Your task to perform on an android device: Open Youtube and go to "Your channel" Image 0: 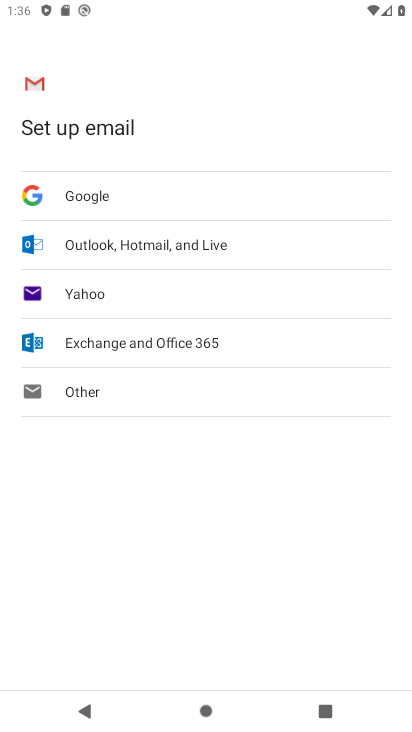
Step 0: press home button
Your task to perform on an android device: Open Youtube and go to "Your channel" Image 1: 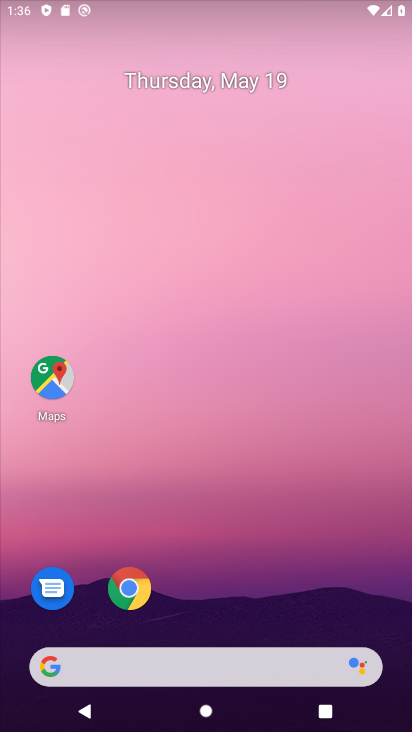
Step 1: drag from (290, 471) to (267, 72)
Your task to perform on an android device: Open Youtube and go to "Your channel" Image 2: 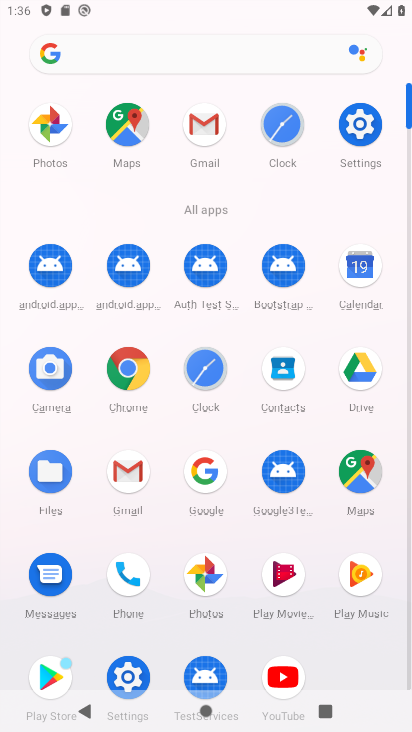
Step 2: drag from (245, 515) to (230, 305)
Your task to perform on an android device: Open Youtube and go to "Your channel" Image 3: 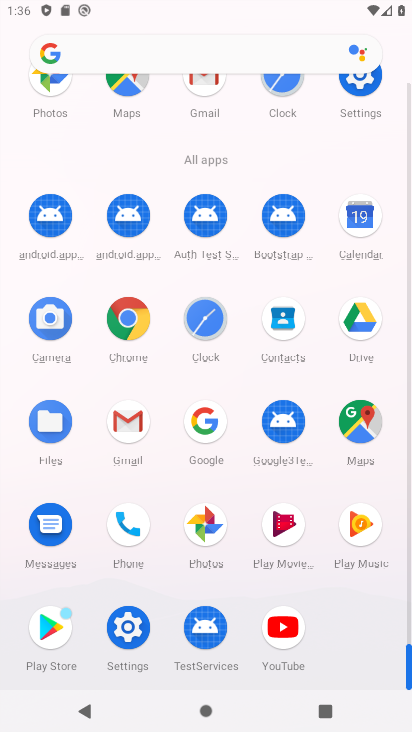
Step 3: click (285, 615)
Your task to perform on an android device: Open Youtube and go to "Your channel" Image 4: 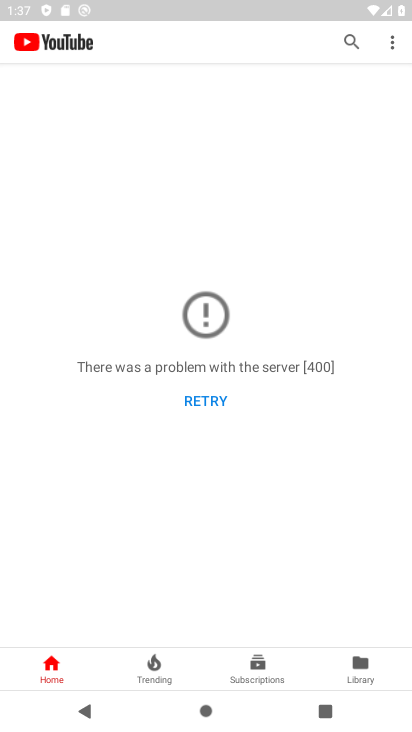
Step 4: task complete